Your task to perform on an android device: Open Maps and search for coffee Image 0: 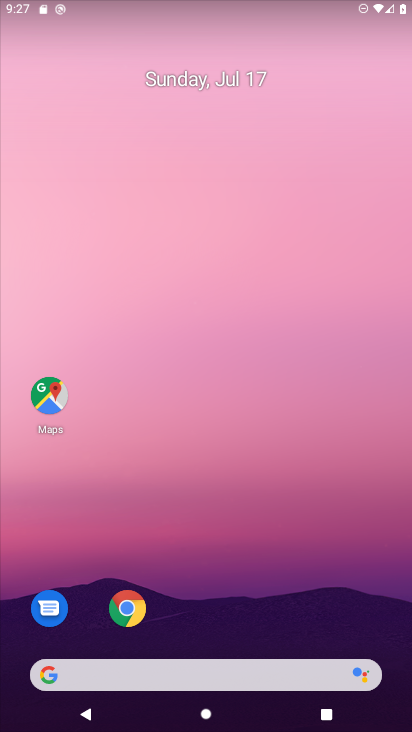
Step 0: click (53, 396)
Your task to perform on an android device: Open Maps and search for coffee Image 1: 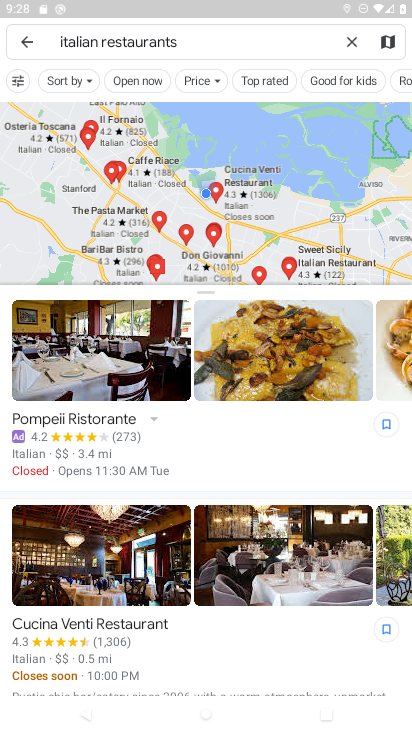
Step 1: click (350, 40)
Your task to perform on an android device: Open Maps and search for coffee Image 2: 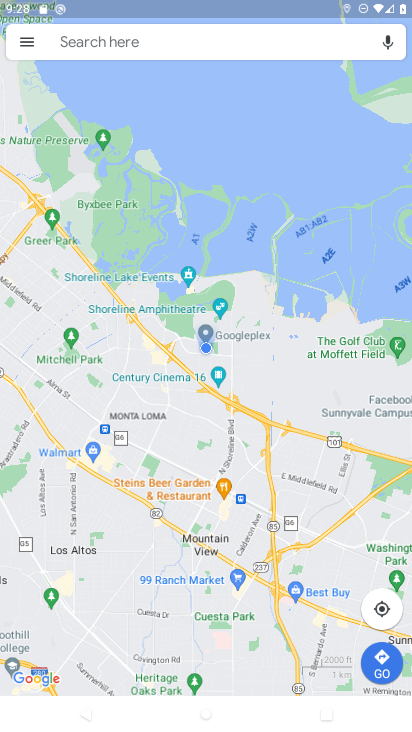
Step 2: click (284, 42)
Your task to perform on an android device: Open Maps and search for coffee Image 3: 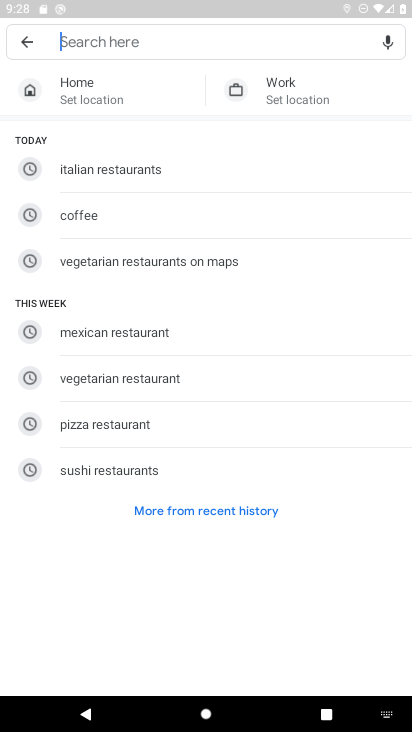
Step 3: type "coffee"
Your task to perform on an android device: Open Maps and search for coffee Image 4: 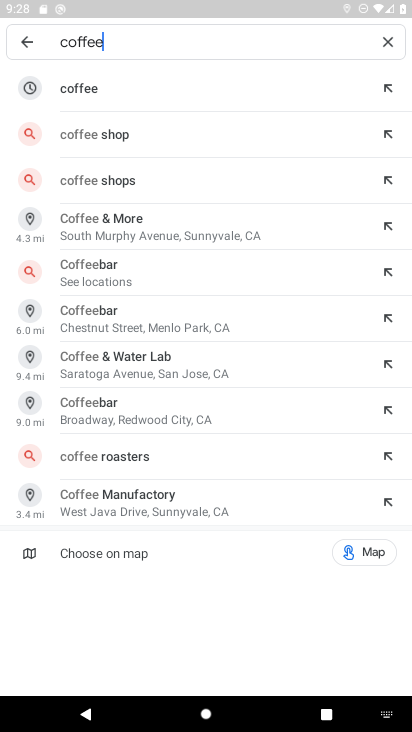
Step 4: click (89, 95)
Your task to perform on an android device: Open Maps and search for coffee Image 5: 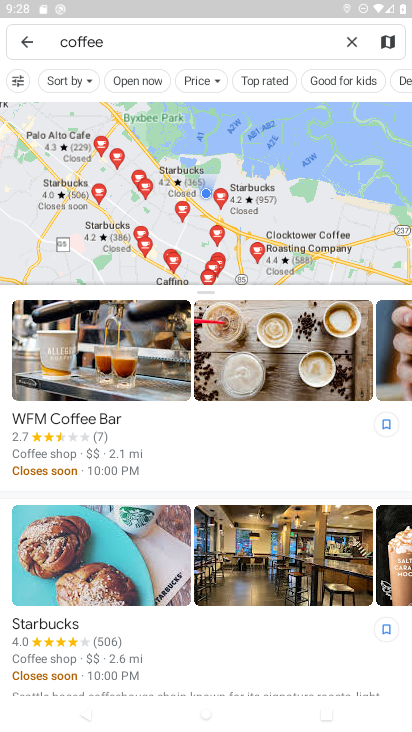
Step 5: task complete